Your task to perform on an android device: change the clock display to show seconds Image 0: 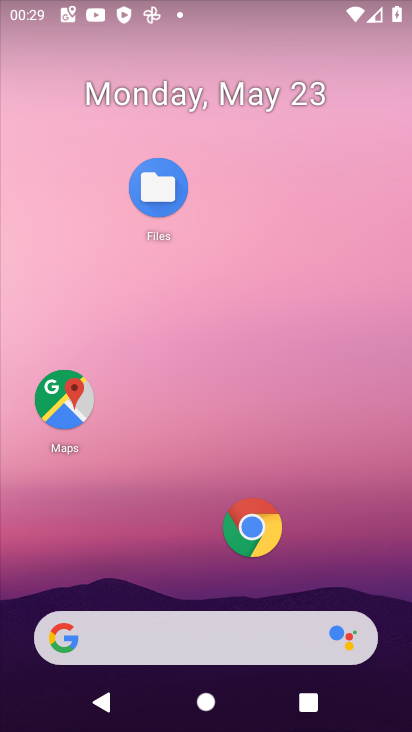
Step 0: drag from (180, 544) to (93, 50)
Your task to perform on an android device: change the clock display to show seconds Image 1: 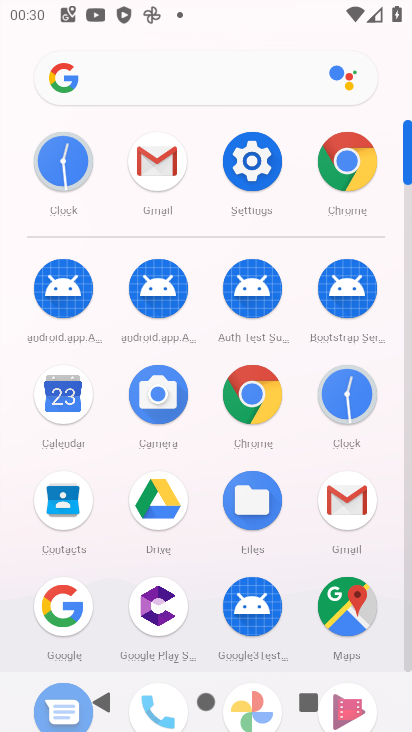
Step 1: click (336, 392)
Your task to perform on an android device: change the clock display to show seconds Image 2: 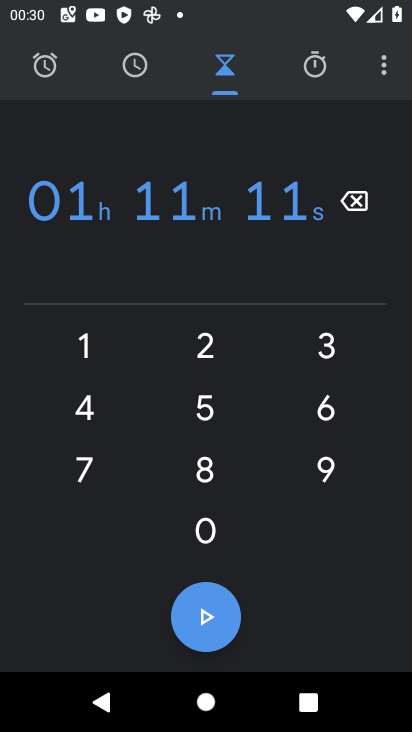
Step 2: click (385, 61)
Your task to perform on an android device: change the clock display to show seconds Image 3: 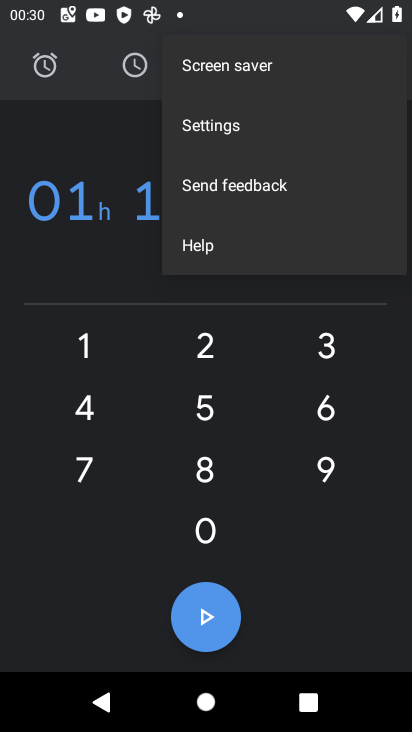
Step 3: click (225, 124)
Your task to perform on an android device: change the clock display to show seconds Image 4: 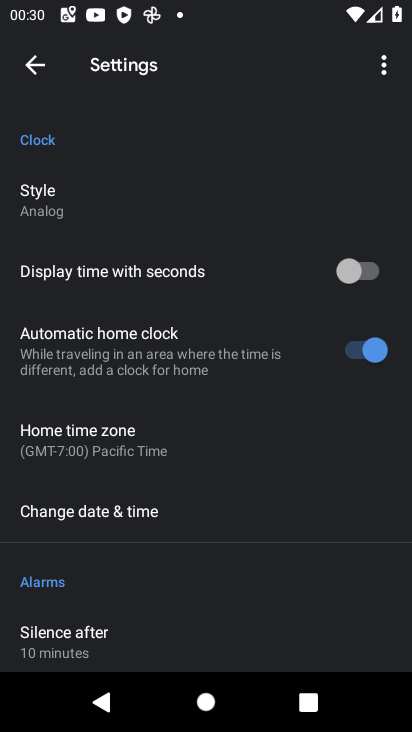
Step 4: click (346, 266)
Your task to perform on an android device: change the clock display to show seconds Image 5: 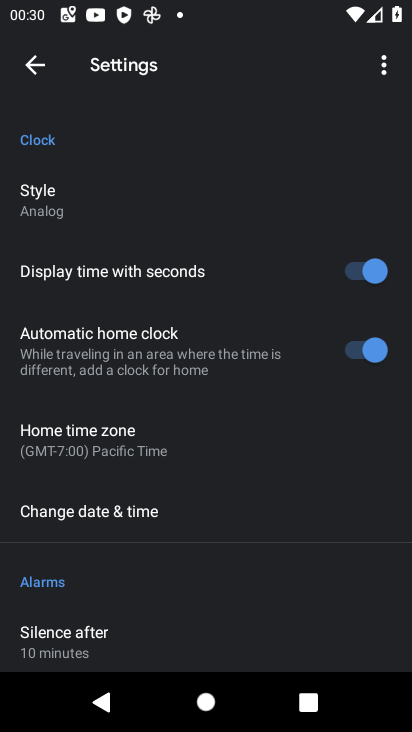
Step 5: task complete